Your task to perform on an android device: Search for seafood restaurants on Google Maps Image 0: 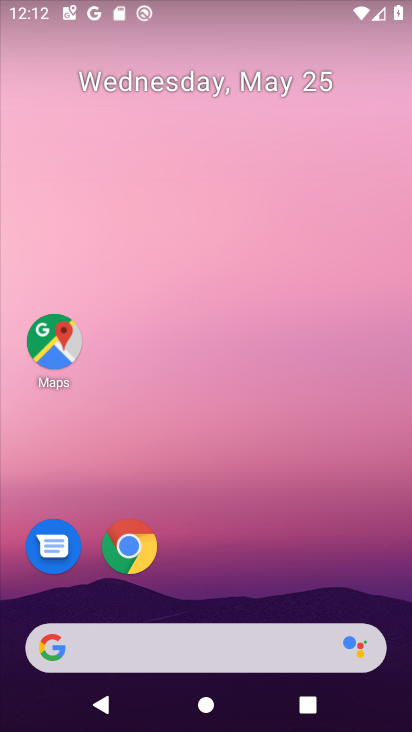
Step 0: drag from (242, 517) to (312, 108)
Your task to perform on an android device: Search for seafood restaurants on Google Maps Image 1: 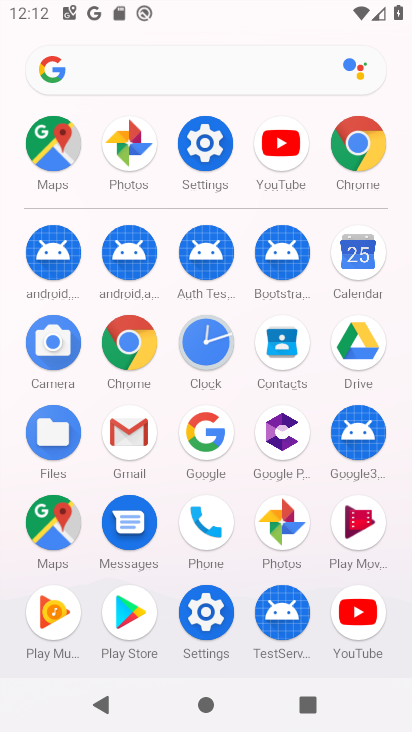
Step 1: click (70, 531)
Your task to perform on an android device: Search for seafood restaurants on Google Maps Image 2: 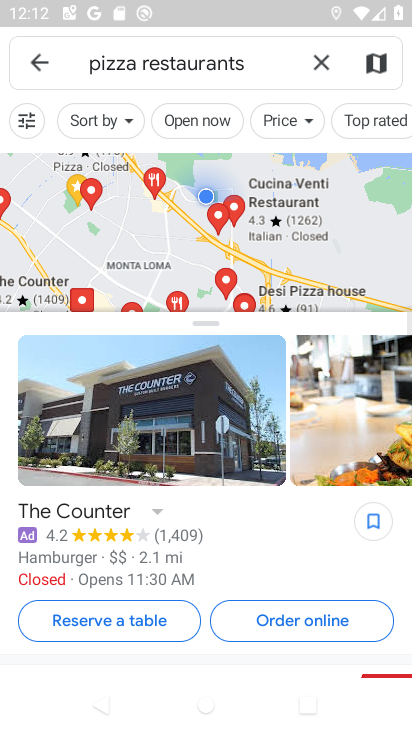
Step 2: click (114, 69)
Your task to perform on an android device: Search for seafood restaurants on Google Maps Image 3: 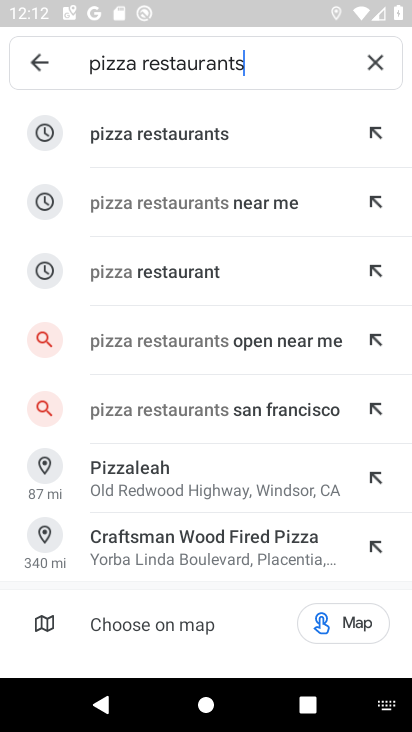
Step 3: click (115, 61)
Your task to perform on an android device: Search for seafood restaurants on Google Maps Image 4: 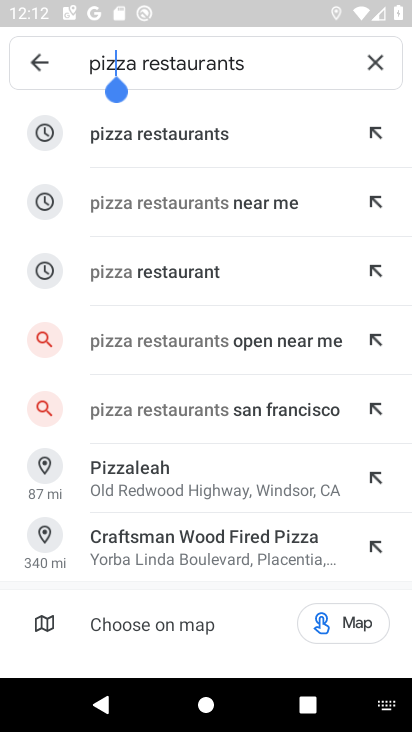
Step 4: click (116, 62)
Your task to perform on an android device: Search for seafood restaurants on Google Maps Image 5: 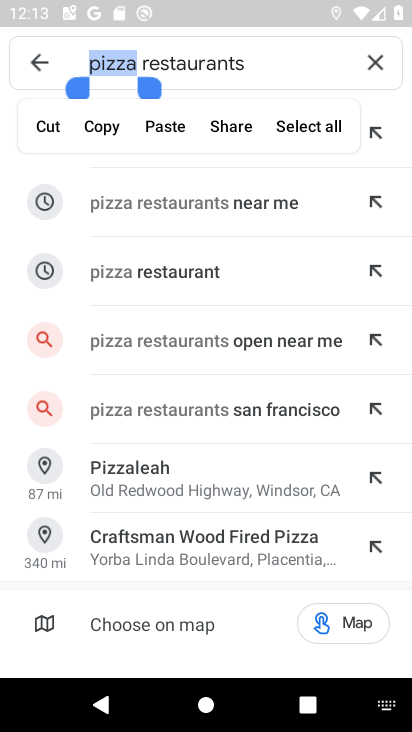
Step 5: type "seafood"
Your task to perform on an android device: Search for seafood restaurants on Google Maps Image 6: 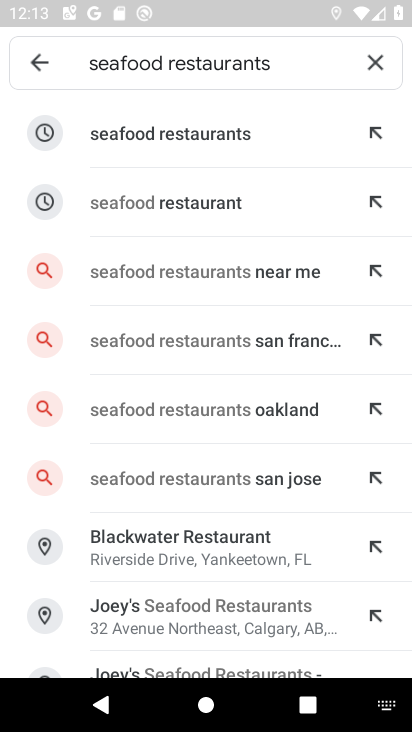
Step 6: click (214, 143)
Your task to perform on an android device: Search for seafood restaurants on Google Maps Image 7: 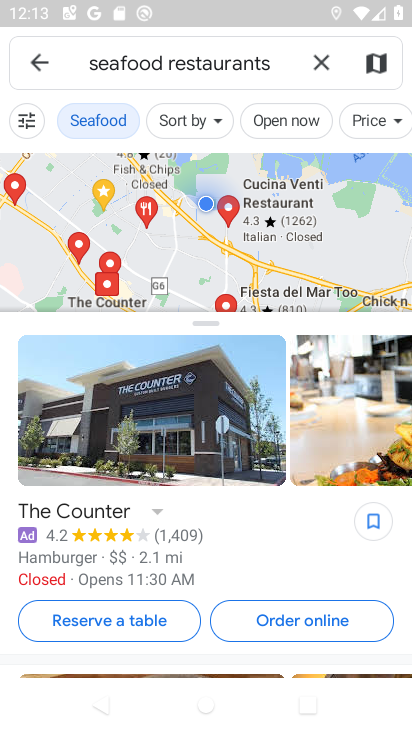
Step 7: task complete